Your task to perform on an android device: What's the price of the new iPhone on eBay? Image 0: 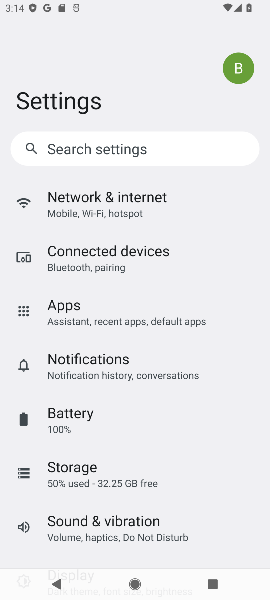
Step 0: press home button
Your task to perform on an android device: What's the price of the new iPhone on eBay? Image 1: 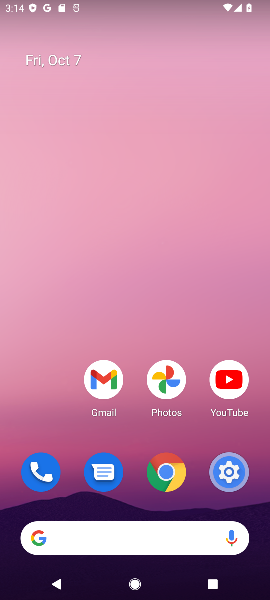
Step 1: click (166, 473)
Your task to perform on an android device: What's the price of the new iPhone on eBay? Image 2: 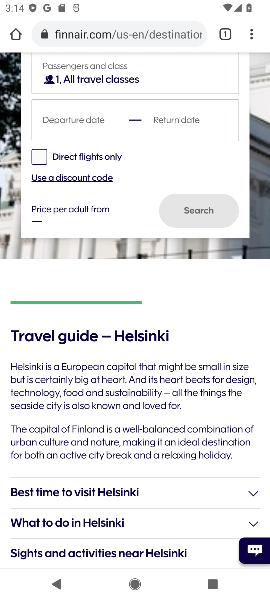
Step 2: click (139, 32)
Your task to perform on an android device: What's the price of the new iPhone on eBay? Image 3: 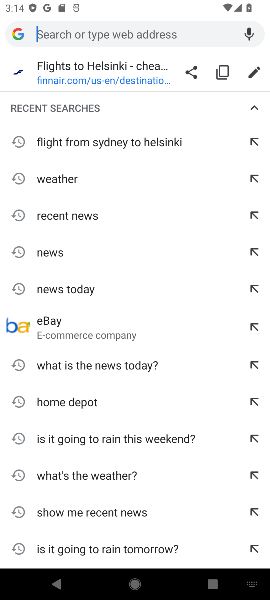
Step 3: type "eBay"
Your task to perform on an android device: What's the price of the new iPhone on eBay? Image 4: 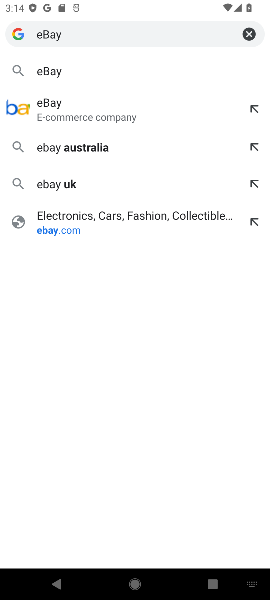
Step 4: click (64, 77)
Your task to perform on an android device: What's the price of the new iPhone on eBay? Image 5: 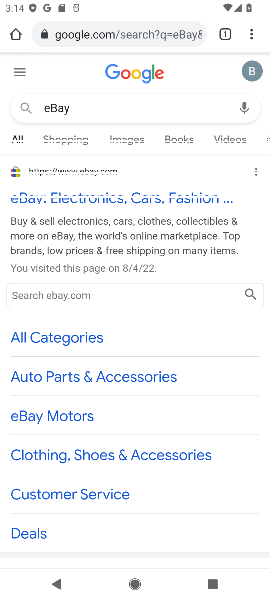
Step 5: click (102, 199)
Your task to perform on an android device: What's the price of the new iPhone on eBay? Image 6: 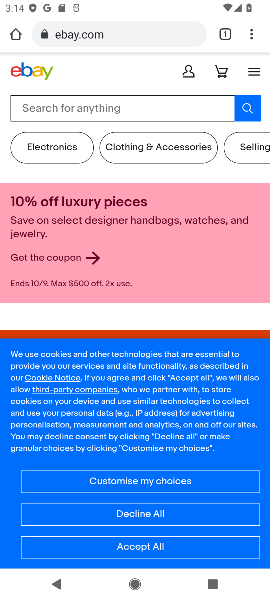
Step 6: click (141, 108)
Your task to perform on an android device: What's the price of the new iPhone on eBay? Image 7: 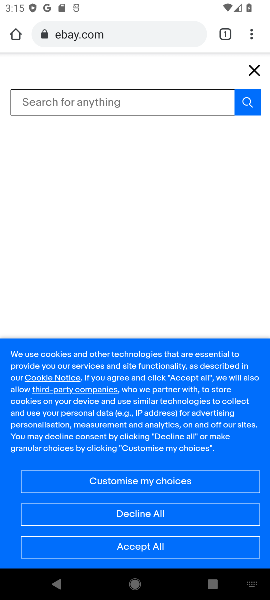
Step 7: type "price of the new iphone"
Your task to perform on an android device: What's the price of the new iPhone on eBay? Image 8: 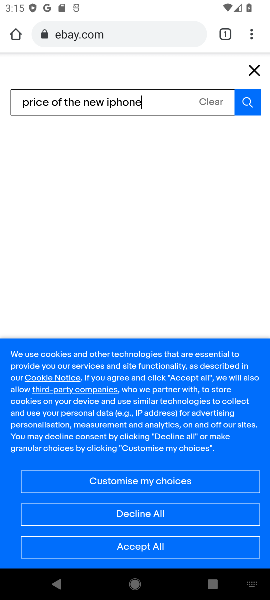
Step 8: click (248, 105)
Your task to perform on an android device: What's the price of the new iPhone on eBay? Image 9: 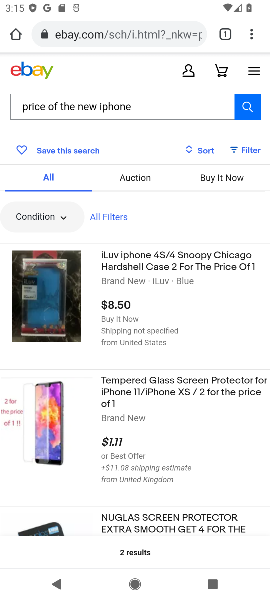
Step 9: task complete